Your task to perform on an android device: What's the weather today? Image 0: 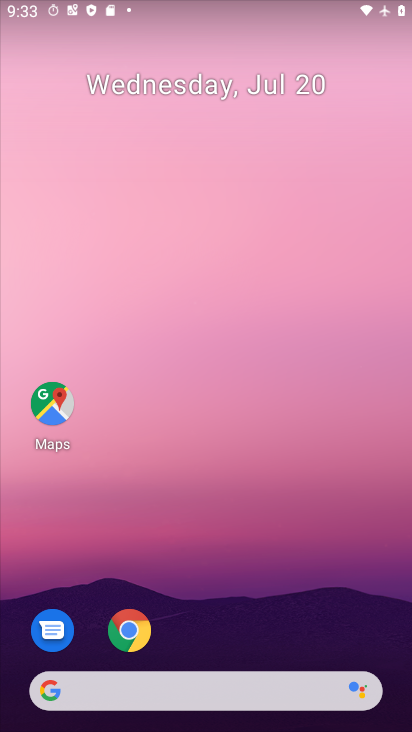
Step 0: drag from (227, 711) to (204, 170)
Your task to perform on an android device: What's the weather today? Image 1: 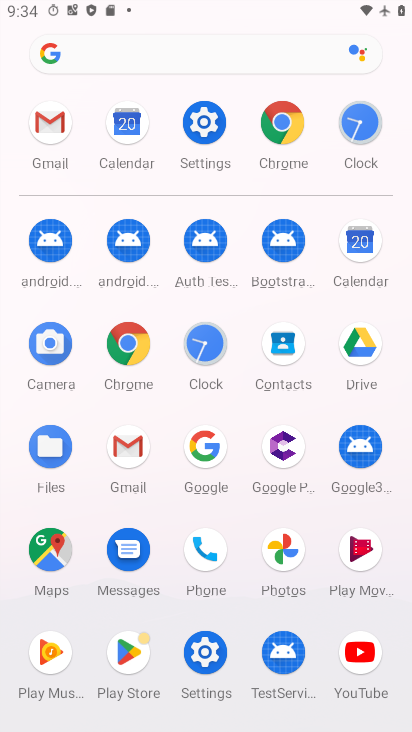
Step 1: click (212, 458)
Your task to perform on an android device: What's the weather today? Image 2: 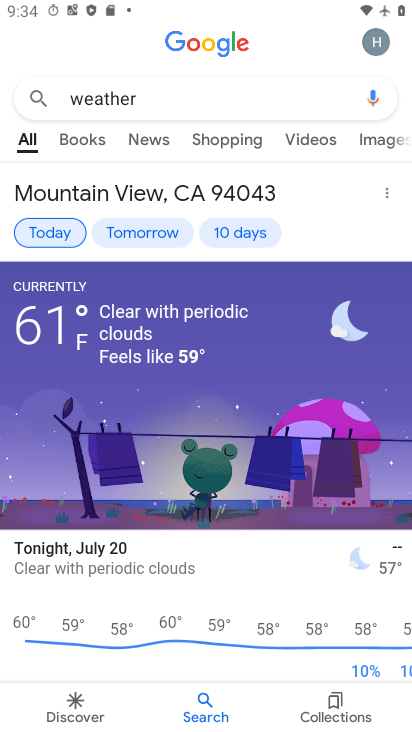
Step 2: task complete